Your task to perform on an android device: toggle data saver in the chrome app Image 0: 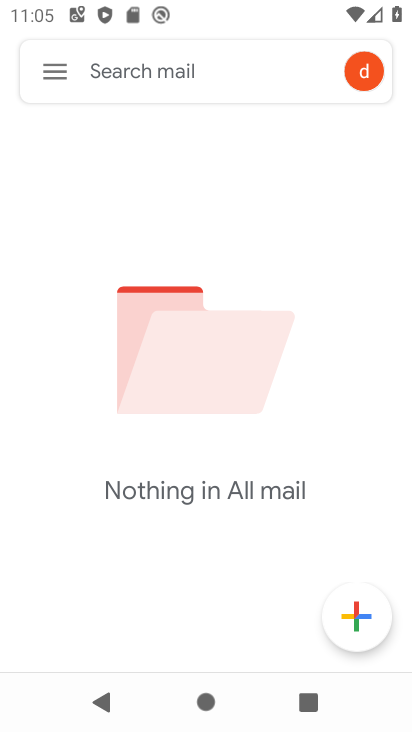
Step 0: press back button
Your task to perform on an android device: toggle data saver in the chrome app Image 1: 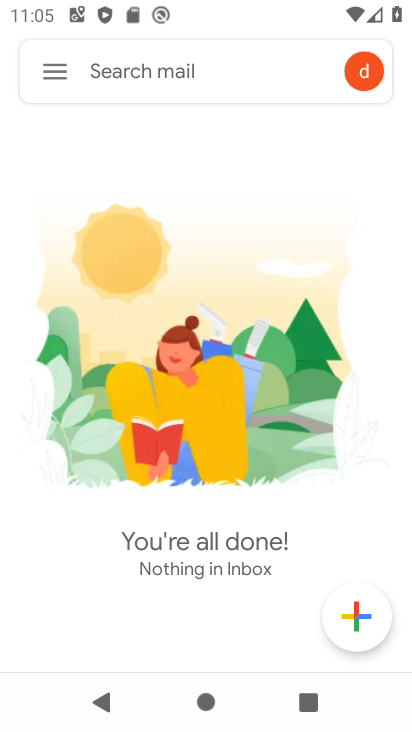
Step 1: press back button
Your task to perform on an android device: toggle data saver in the chrome app Image 2: 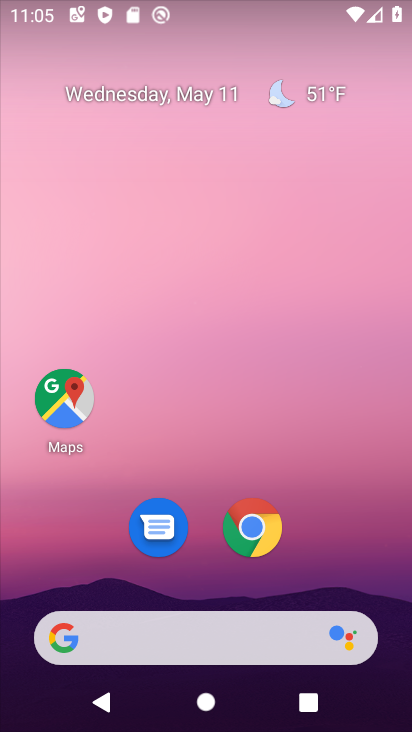
Step 2: click (255, 529)
Your task to perform on an android device: toggle data saver in the chrome app Image 3: 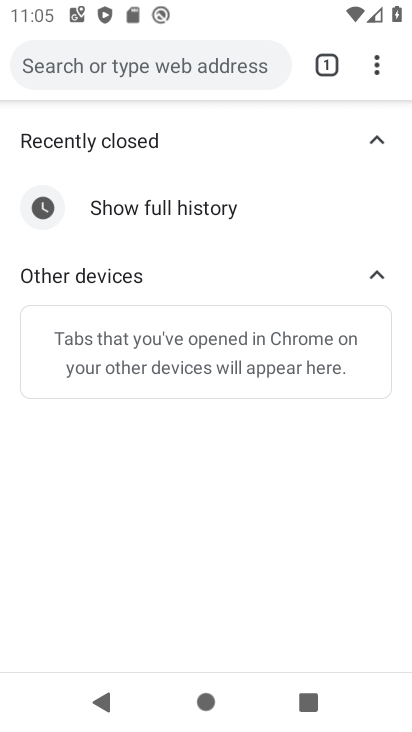
Step 3: click (378, 68)
Your task to perform on an android device: toggle data saver in the chrome app Image 4: 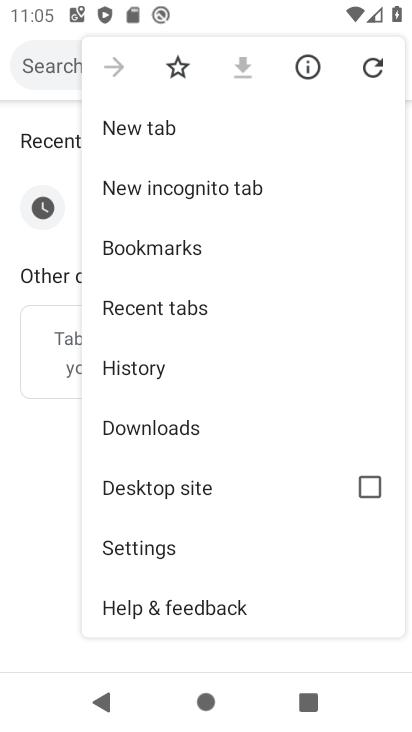
Step 4: click (150, 548)
Your task to perform on an android device: toggle data saver in the chrome app Image 5: 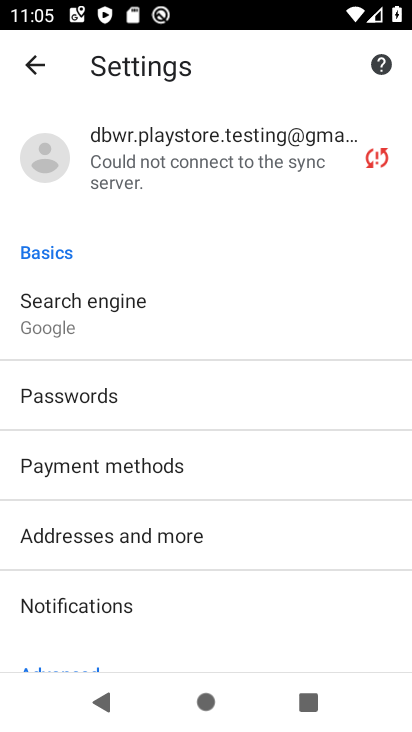
Step 5: drag from (153, 601) to (203, 362)
Your task to perform on an android device: toggle data saver in the chrome app Image 6: 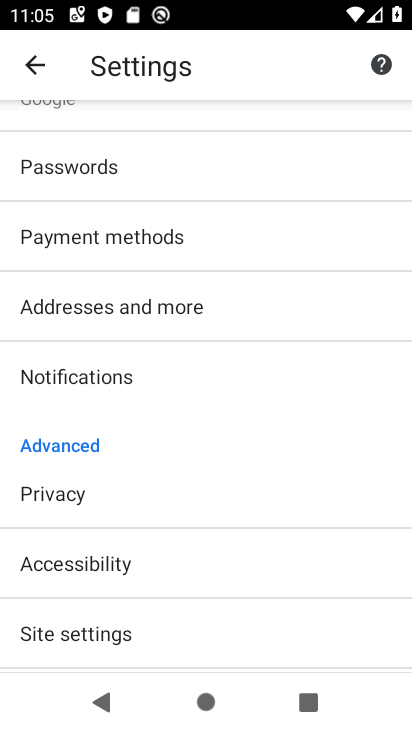
Step 6: drag from (135, 569) to (186, 418)
Your task to perform on an android device: toggle data saver in the chrome app Image 7: 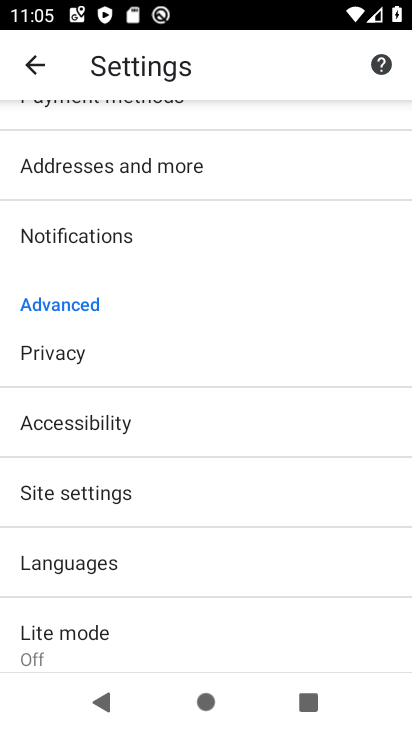
Step 7: click (88, 633)
Your task to perform on an android device: toggle data saver in the chrome app Image 8: 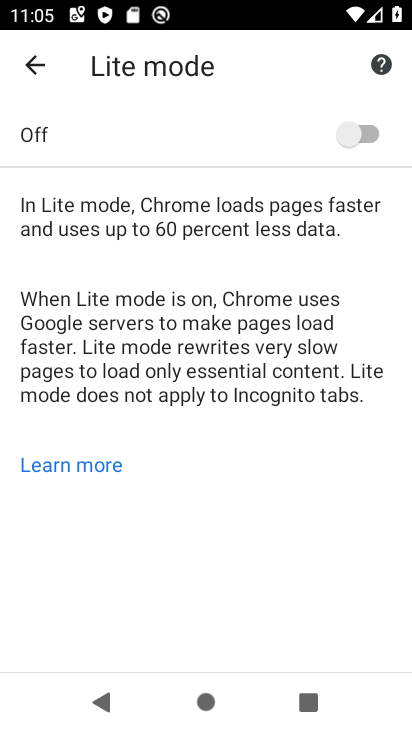
Step 8: click (357, 139)
Your task to perform on an android device: toggle data saver in the chrome app Image 9: 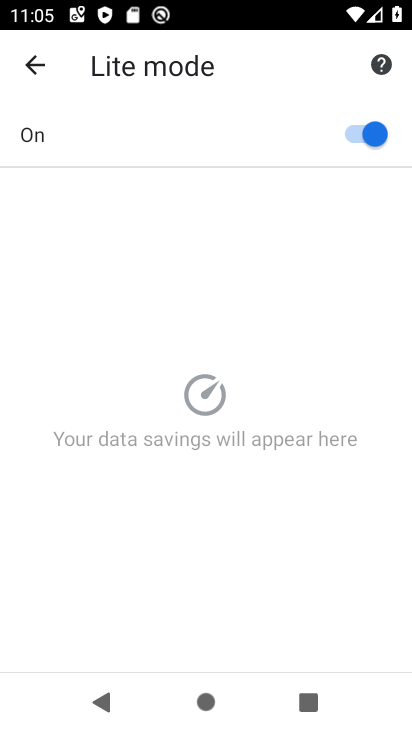
Step 9: task complete